Your task to perform on an android device: Open CNN.com Image 0: 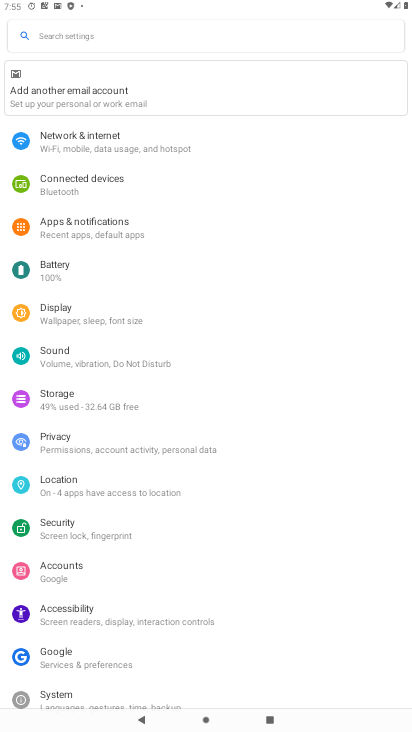
Step 0: press home button
Your task to perform on an android device: Open CNN.com Image 1: 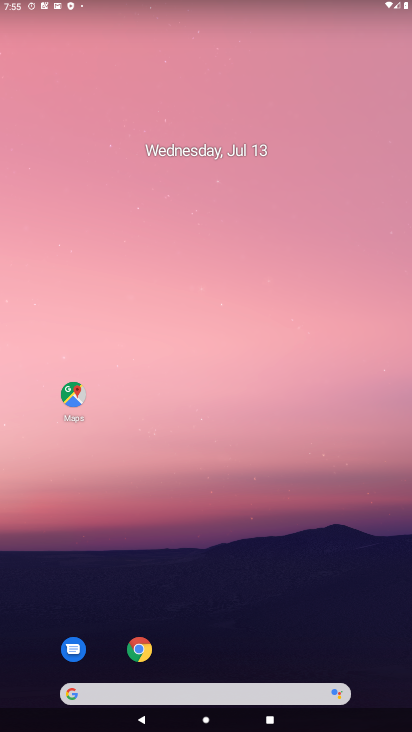
Step 1: click (142, 654)
Your task to perform on an android device: Open CNN.com Image 2: 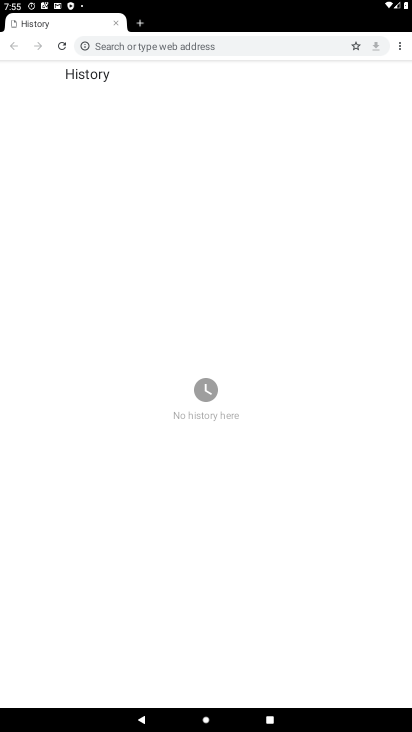
Step 2: click (226, 46)
Your task to perform on an android device: Open CNN.com Image 3: 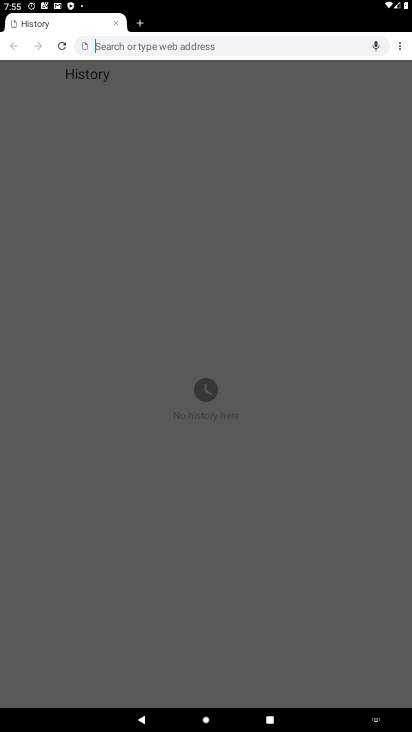
Step 3: type "CNN.com"
Your task to perform on an android device: Open CNN.com Image 4: 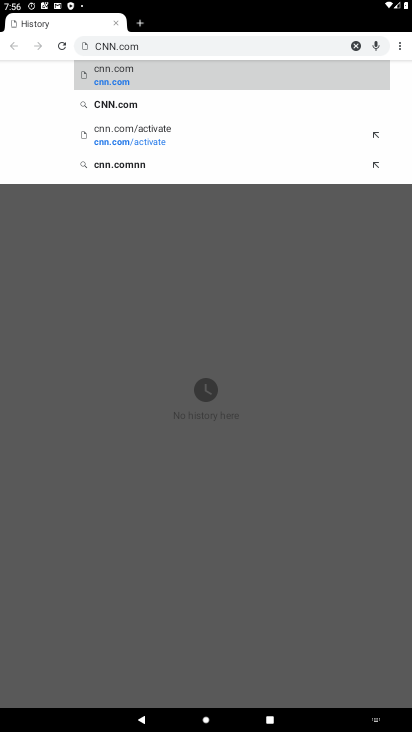
Step 4: click (128, 77)
Your task to perform on an android device: Open CNN.com Image 5: 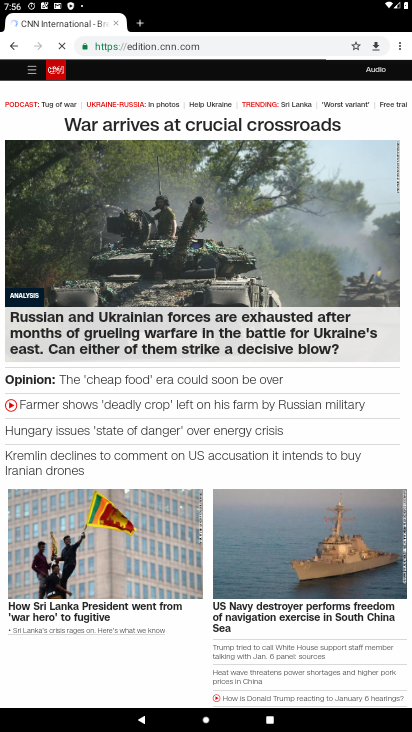
Step 5: task complete